Your task to perform on an android device: Go to internet settings Image 0: 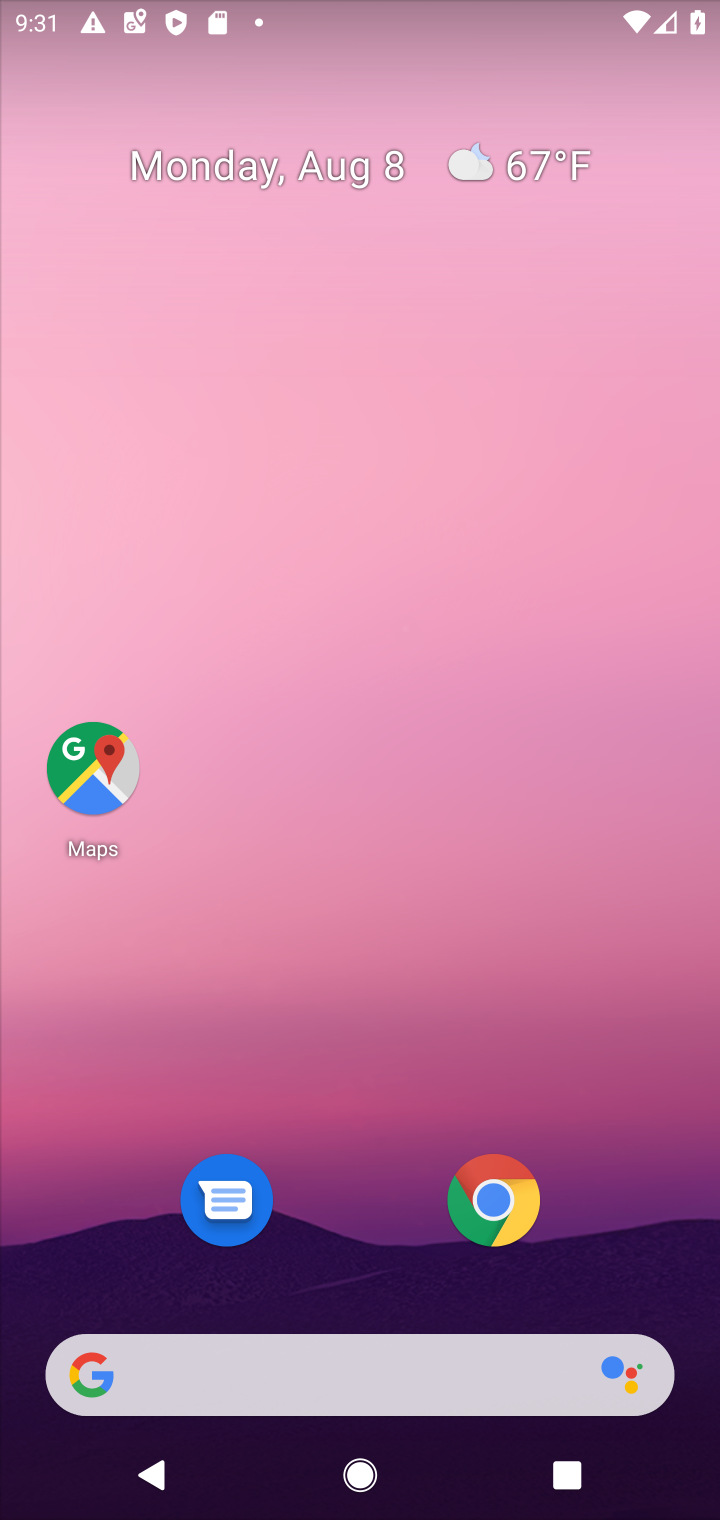
Step 0: press home button
Your task to perform on an android device: Go to internet settings Image 1: 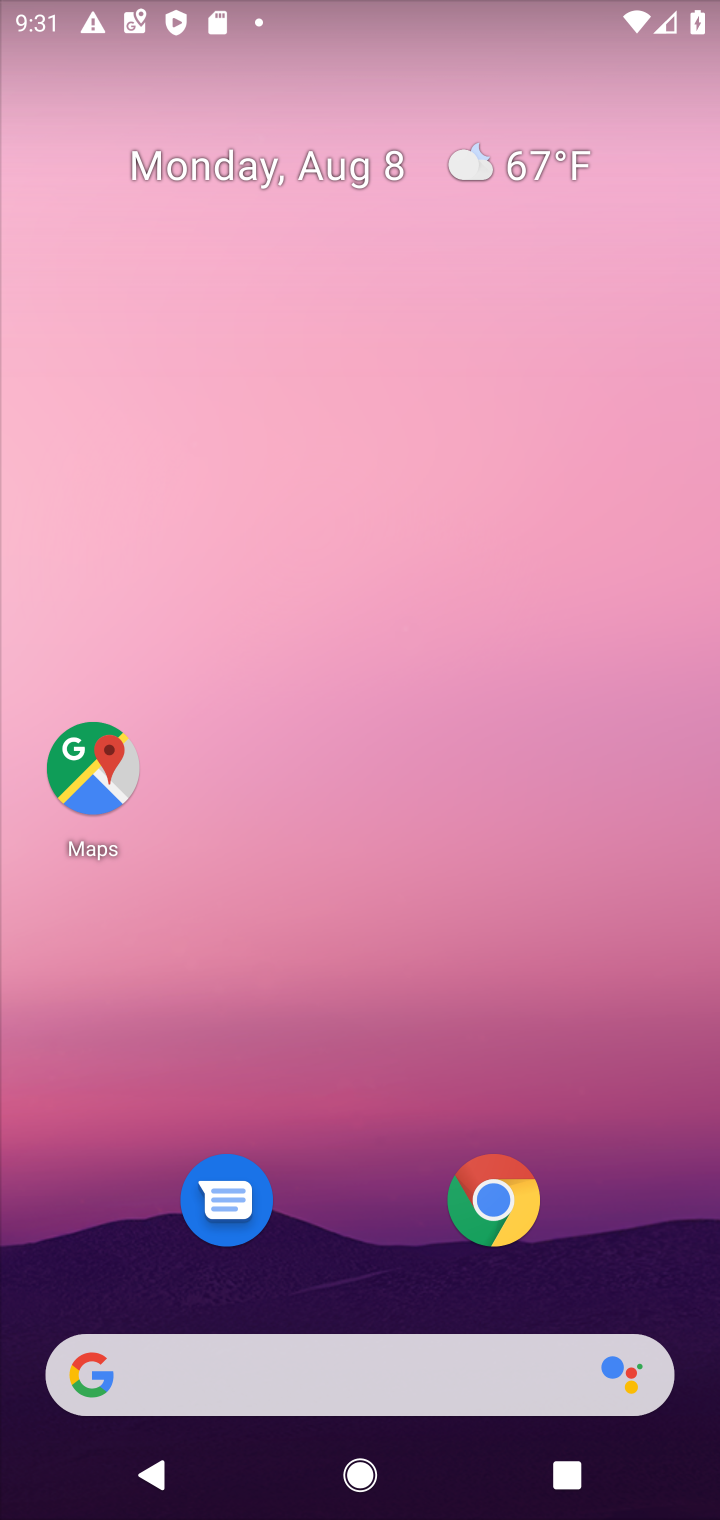
Step 1: drag from (317, 1366) to (650, 39)
Your task to perform on an android device: Go to internet settings Image 2: 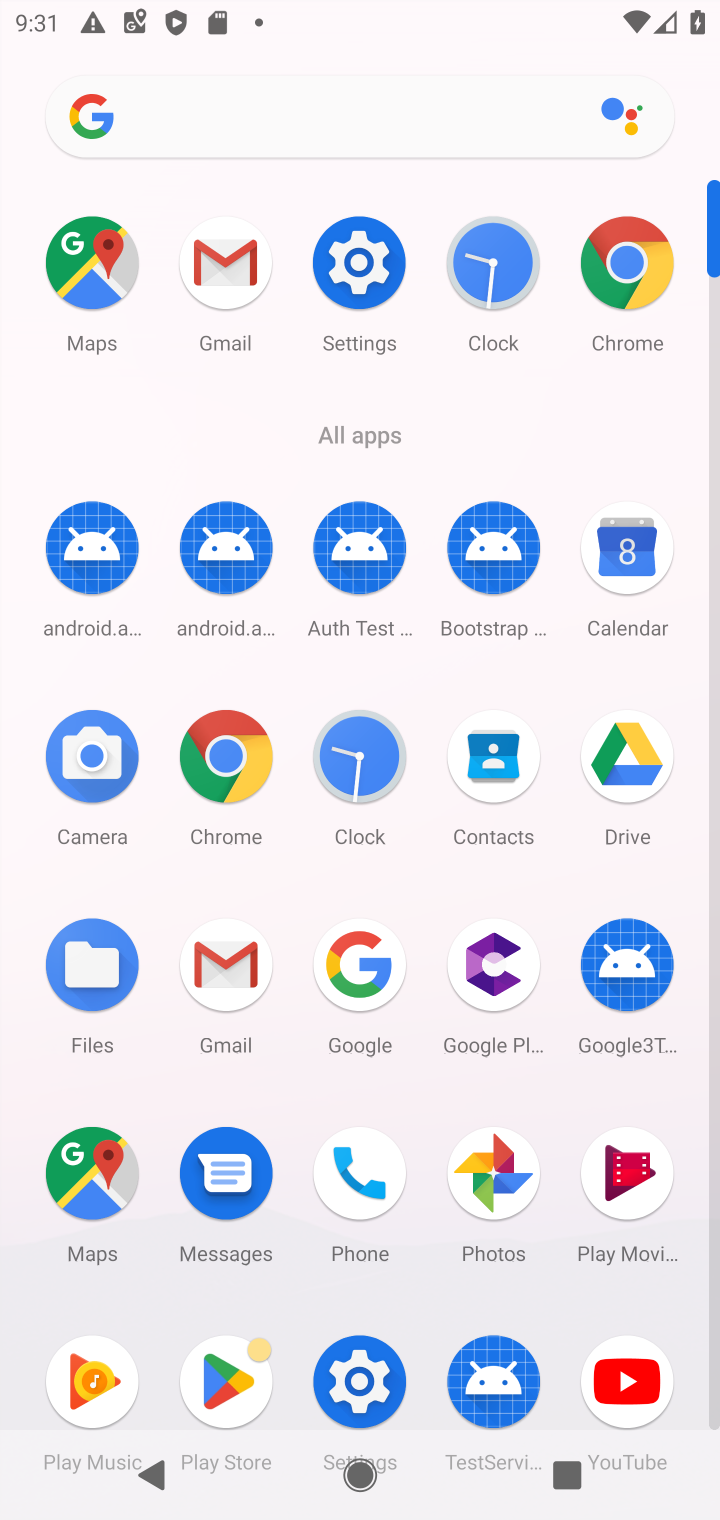
Step 2: click (370, 260)
Your task to perform on an android device: Go to internet settings Image 3: 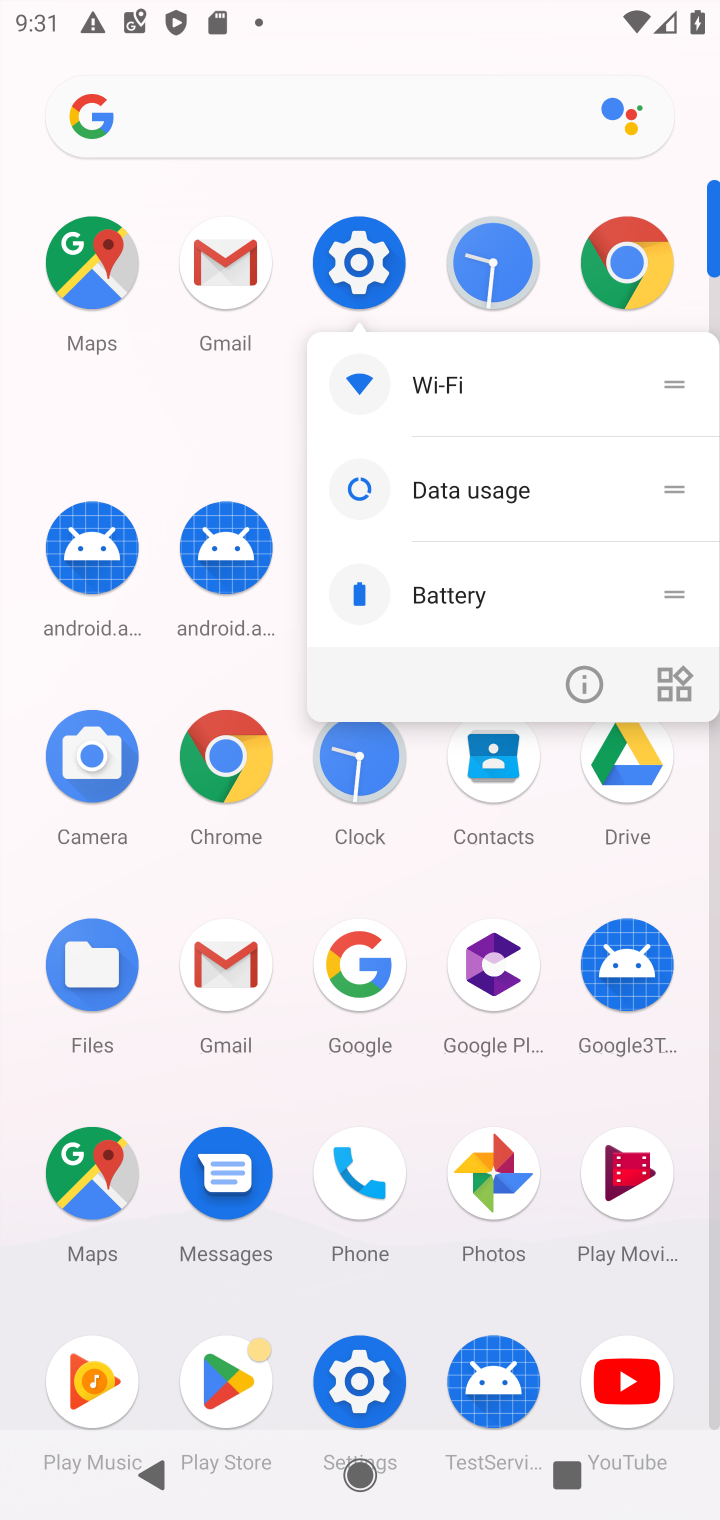
Step 3: click (350, 276)
Your task to perform on an android device: Go to internet settings Image 4: 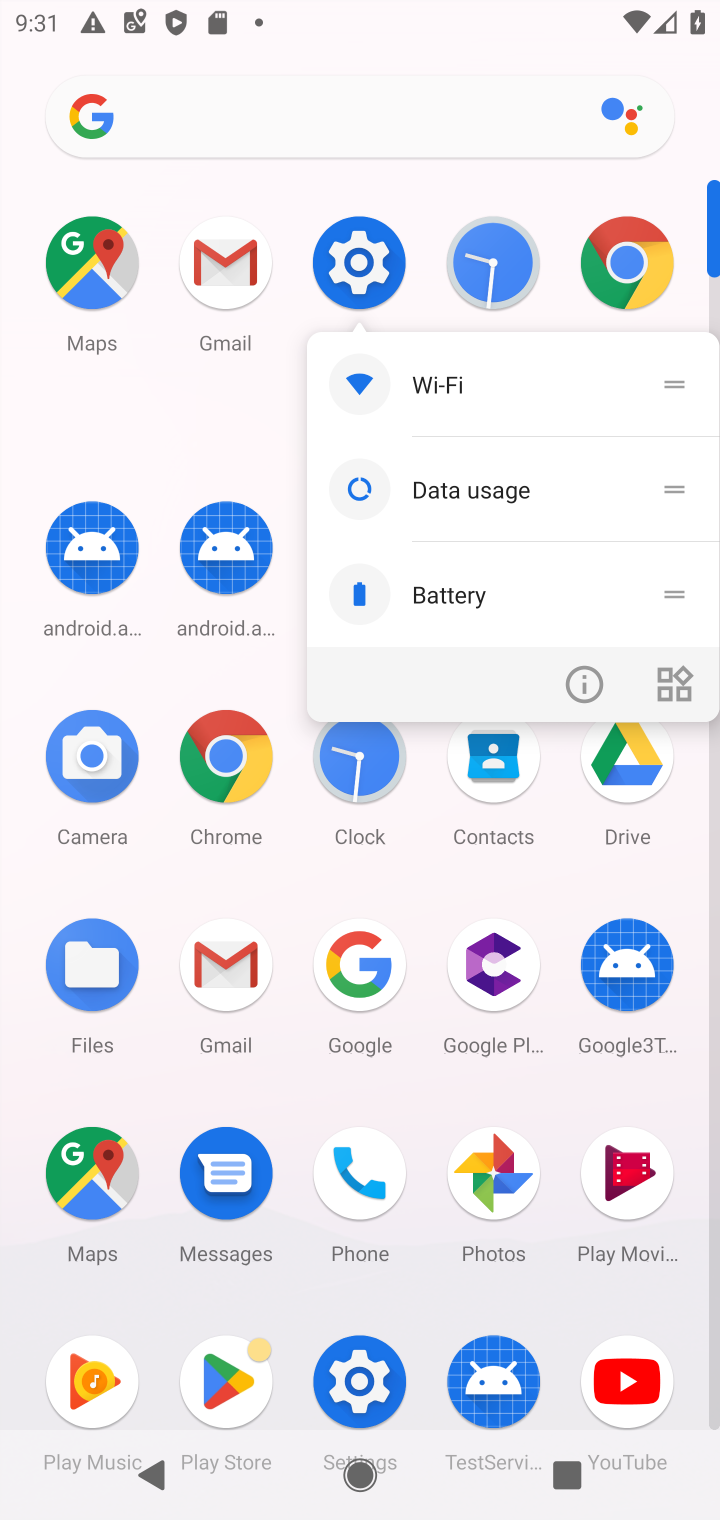
Step 4: click (341, 269)
Your task to perform on an android device: Go to internet settings Image 5: 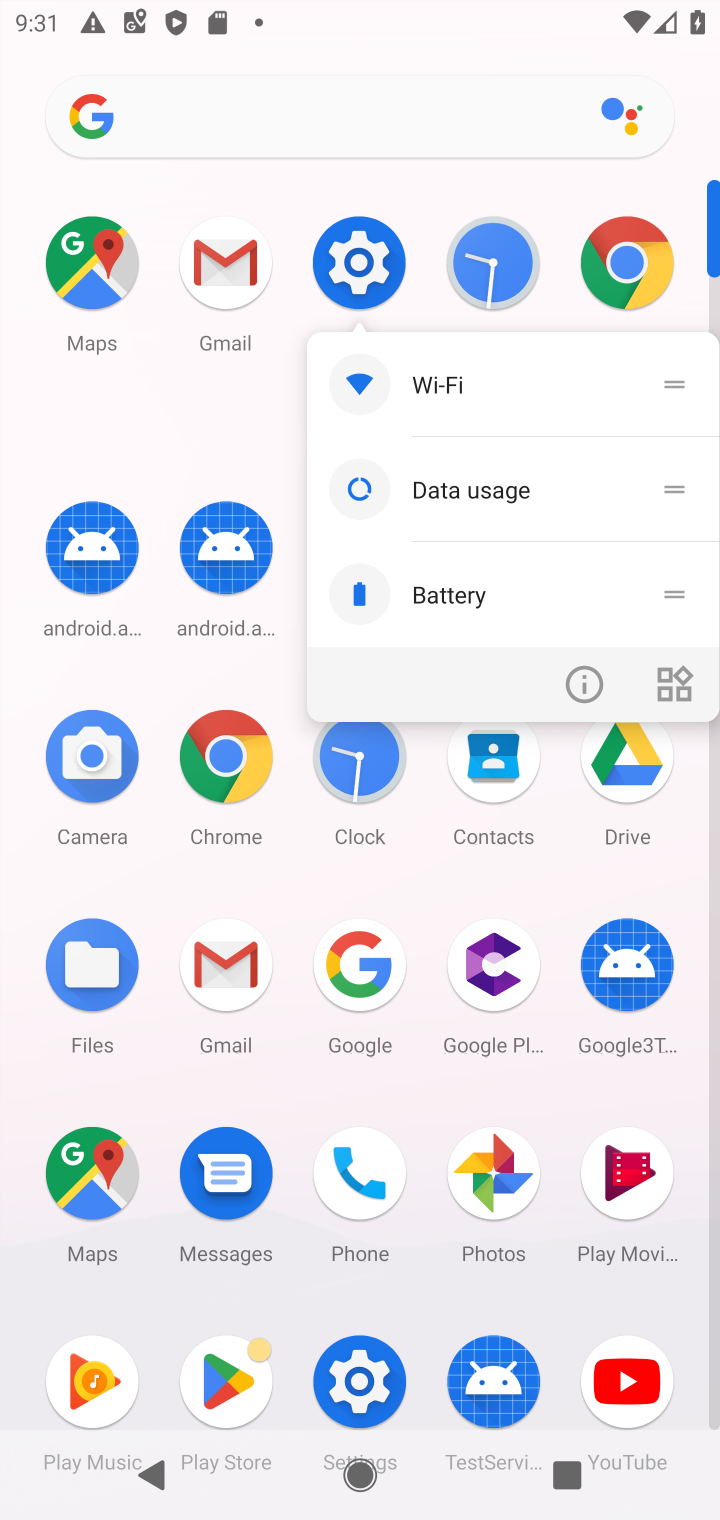
Step 5: click (341, 280)
Your task to perform on an android device: Go to internet settings Image 6: 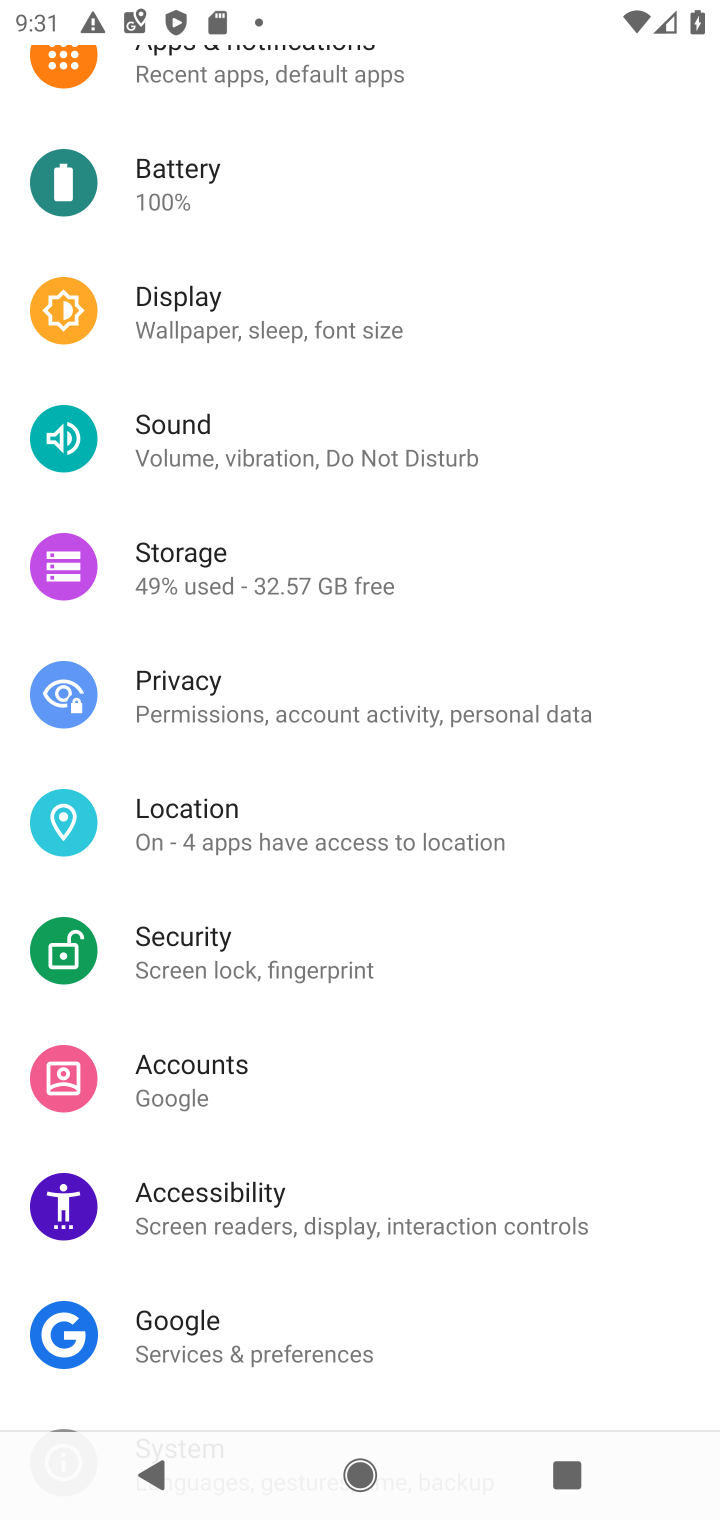
Step 6: drag from (554, 191) to (455, 1096)
Your task to perform on an android device: Go to internet settings Image 7: 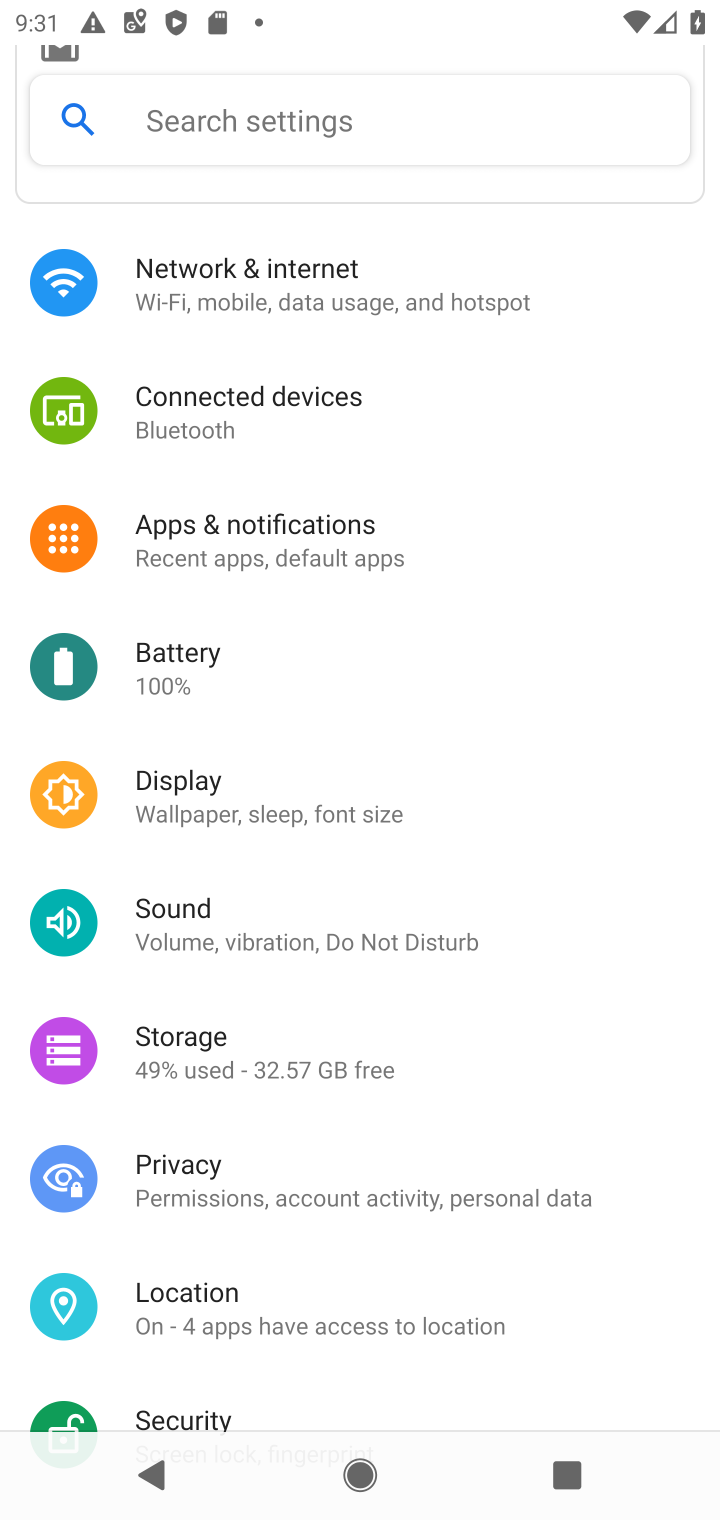
Step 7: click (322, 286)
Your task to perform on an android device: Go to internet settings Image 8: 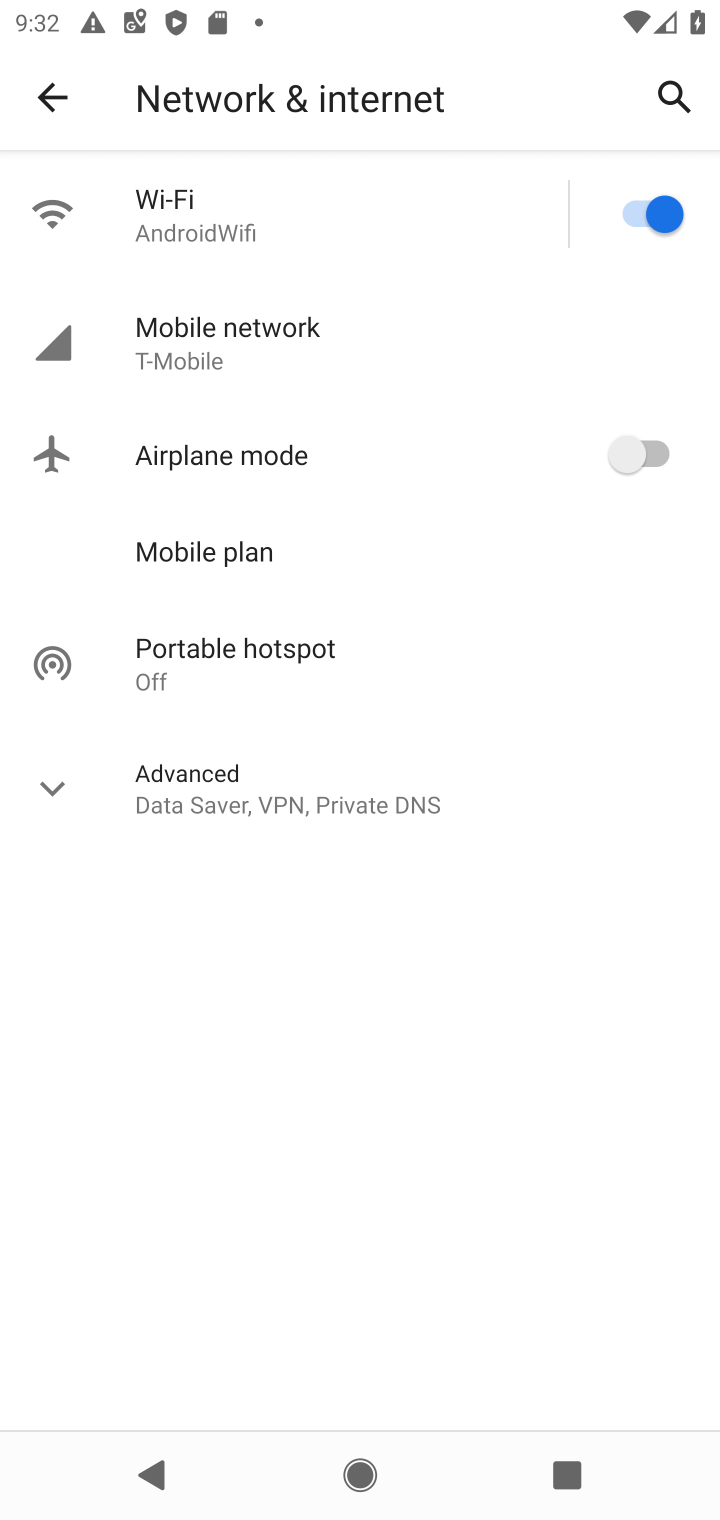
Step 8: click (180, 220)
Your task to perform on an android device: Go to internet settings Image 9: 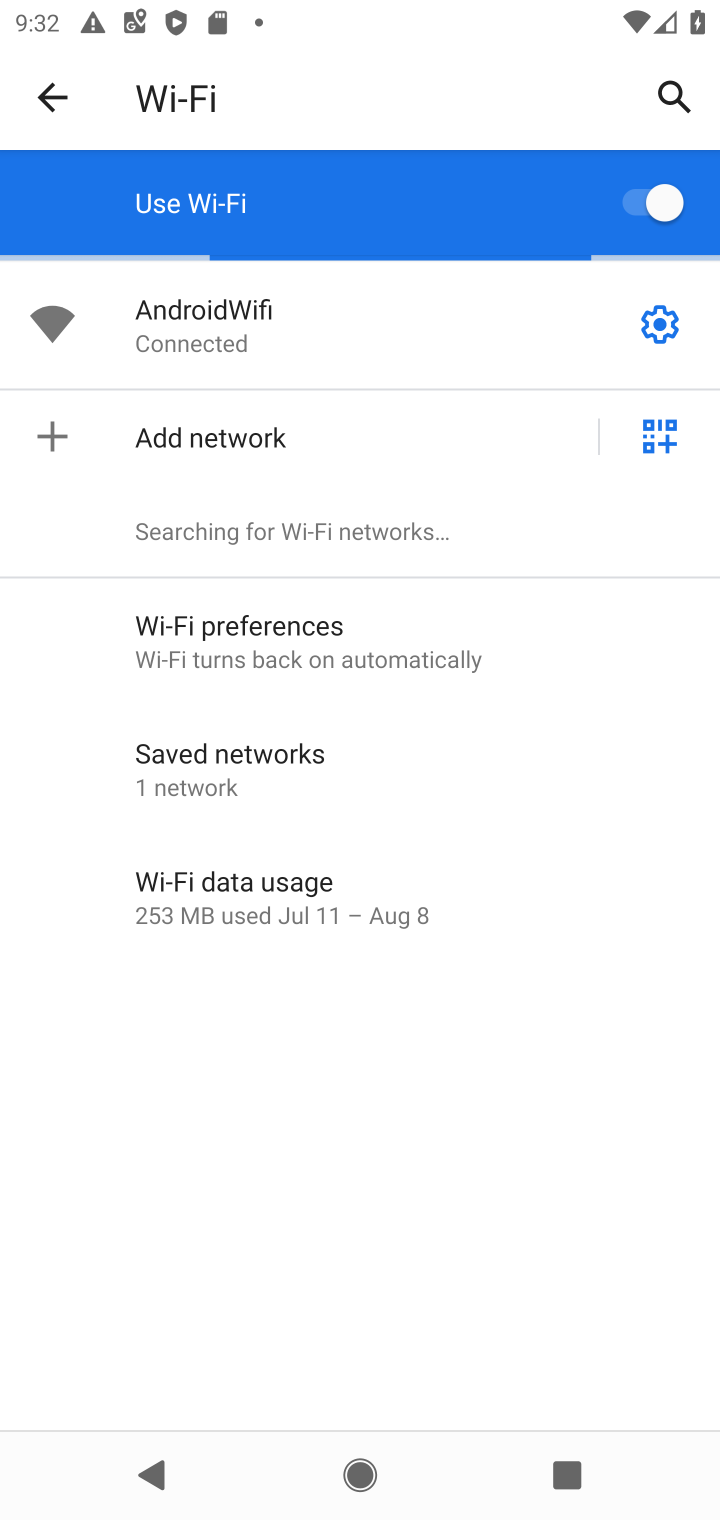
Step 9: task complete